Your task to perform on an android device: install app "Google Photos" Image 0: 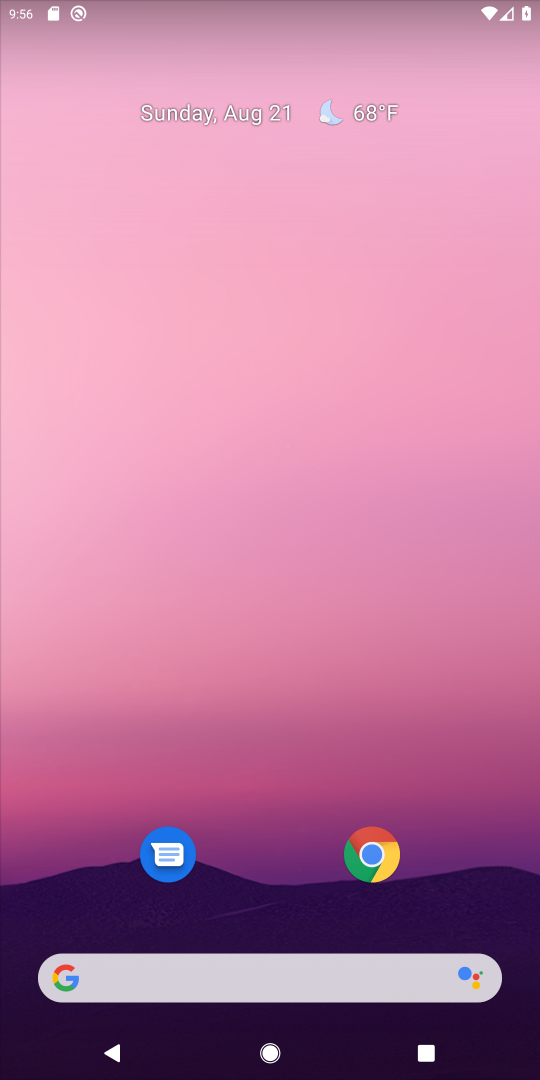
Step 0: drag from (307, 925) to (257, 203)
Your task to perform on an android device: install app "Google Photos" Image 1: 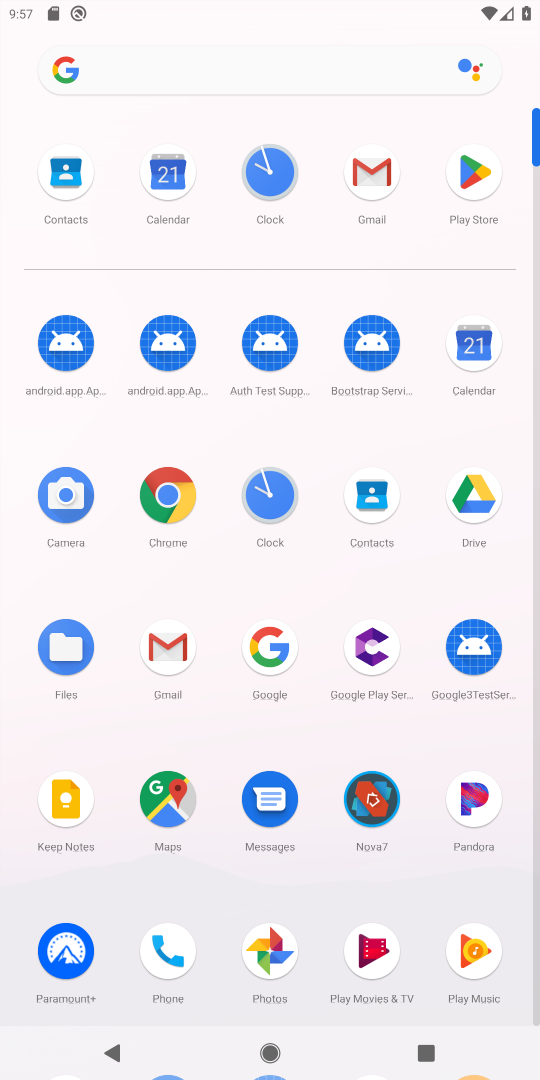
Step 1: click (277, 945)
Your task to perform on an android device: install app "Google Photos" Image 2: 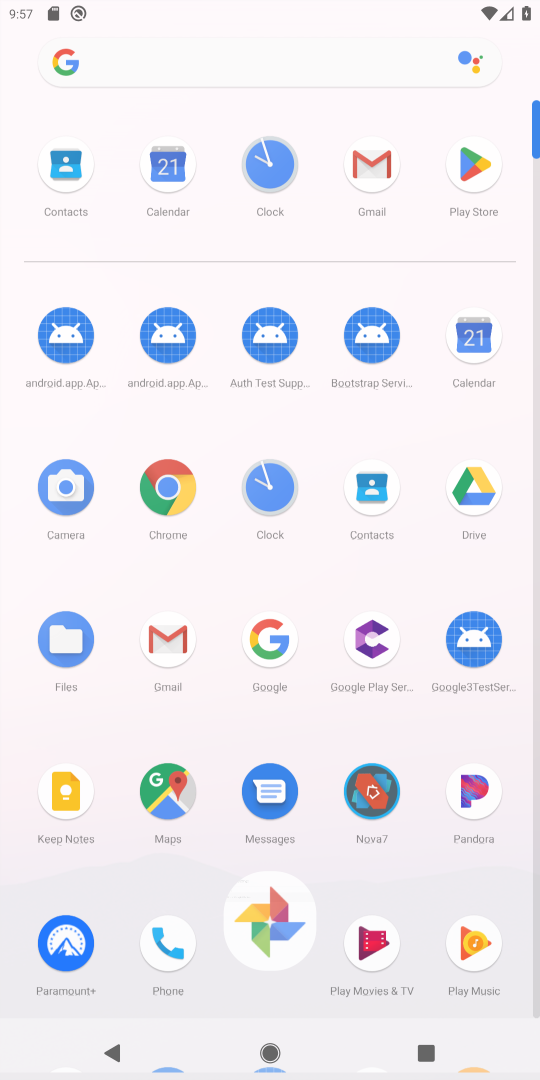
Step 2: task complete